Your task to perform on an android device: toggle translation in the chrome app Image 0: 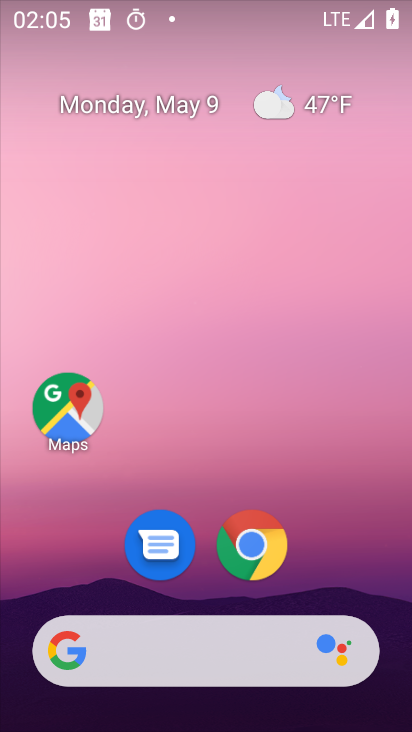
Step 0: drag from (343, 600) to (369, 67)
Your task to perform on an android device: toggle translation in the chrome app Image 1: 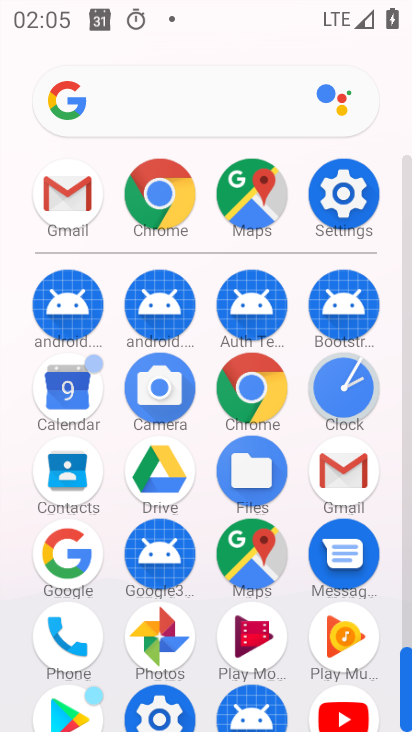
Step 1: click (245, 399)
Your task to perform on an android device: toggle translation in the chrome app Image 2: 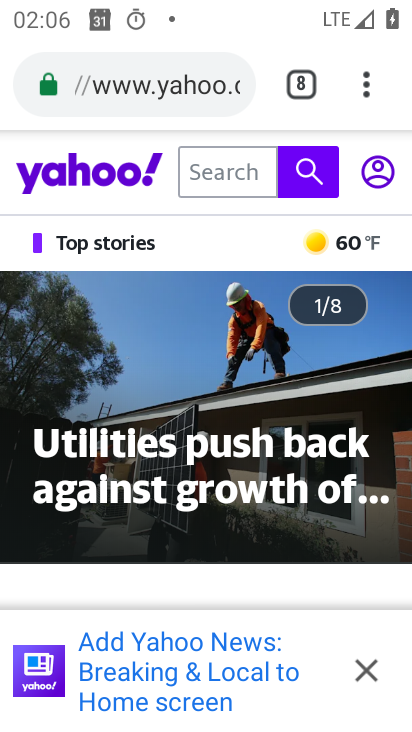
Step 2: click (367, 80)
Your task to perform on an android device: toggle translation in the chrome app Image 3: 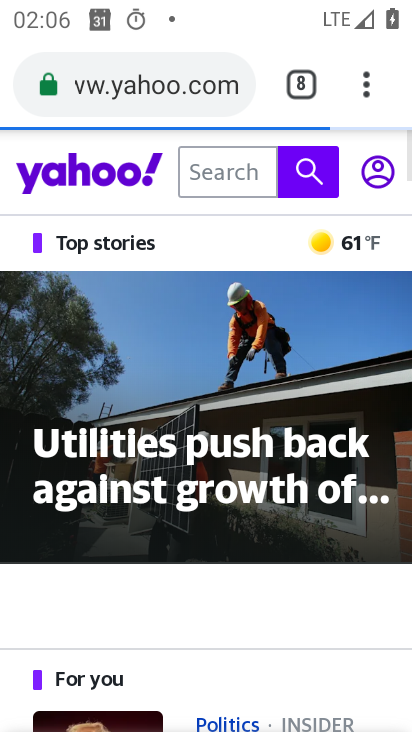
Step 3: drag from (363, 93) to (134, 603)
Your task to perform on an android device: toggle translation in the chrome app Image 4: 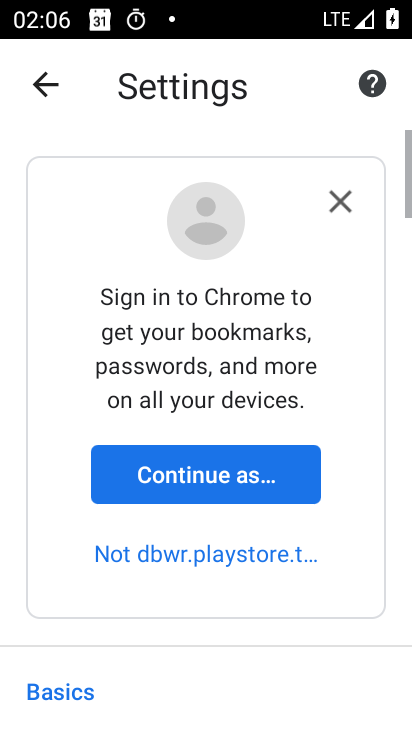
Step 4: drag from (149, 696) to (250, 12)
Your task to perform on an android device: toggle translation in the chrome app Image 5: 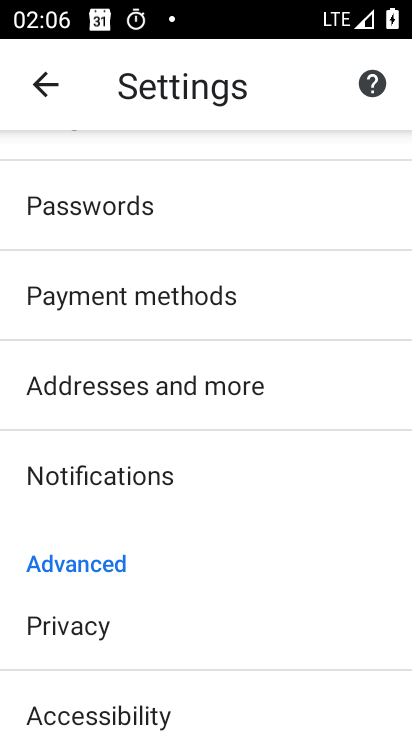
Step 5: drag from (147, 671) to (212, 229)
Your task to perform on an android device: toggle translation in the chrome app Image 6: 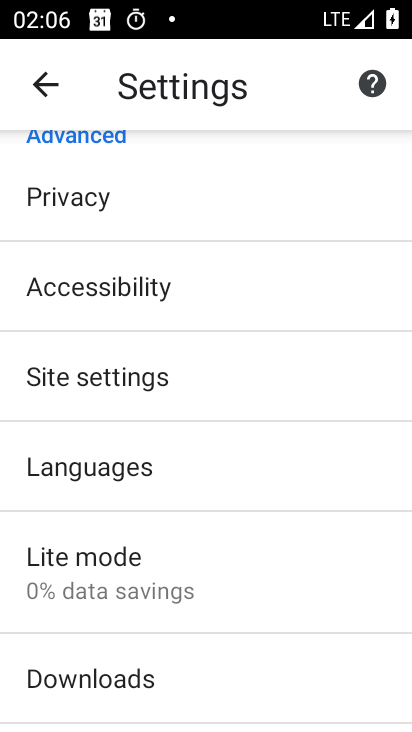
Step 6: click (129, 581)
Your task to perform on an android device: toggle translation in the chrome app Image 7: 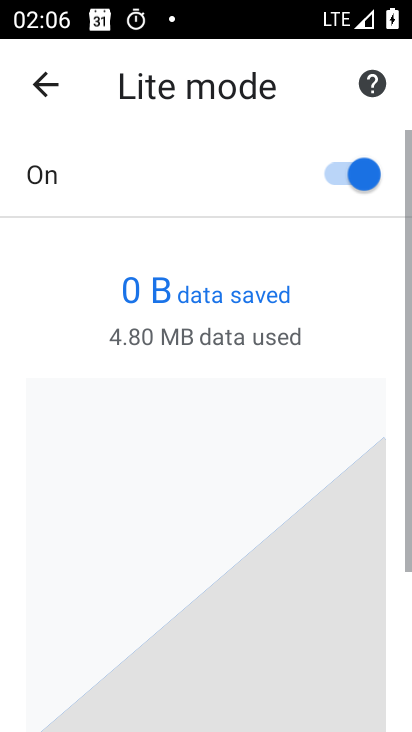
Step 7: press back button
Your task to perform on an android device: toggle translation in the chrome app Image 8: 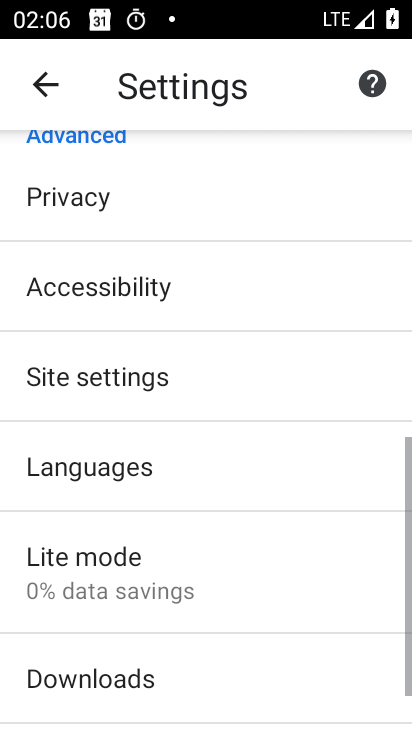
Step 8: click (137, 477)
Your task to perform on an android device: toggle translation in the chrome app Image 9: 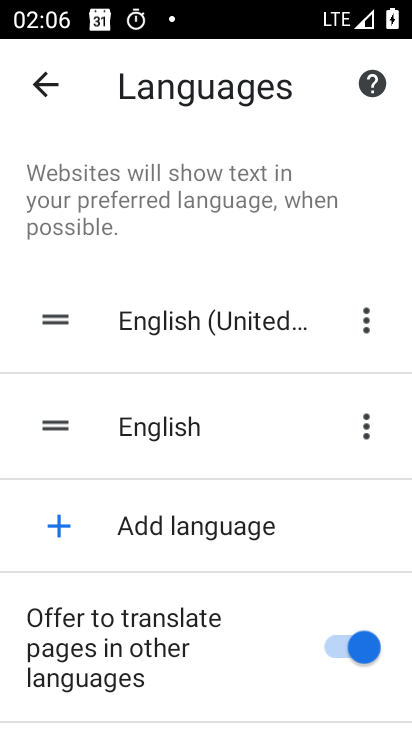
Step 9: click (336, 648)
Your task to perform on an android device: toggle translation in the chrome app Image 10: 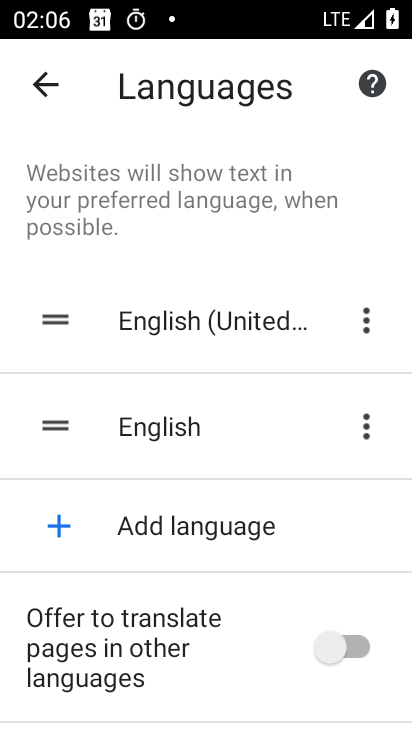
Step 10: task complete